Your task to perform on an android device: Open display settings Image 0: 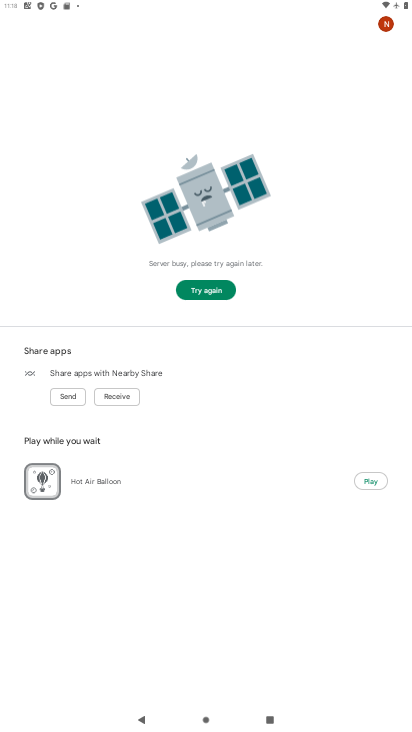
Step 0: press home button
Your task to perform on an android device: Open display settings Image 1: 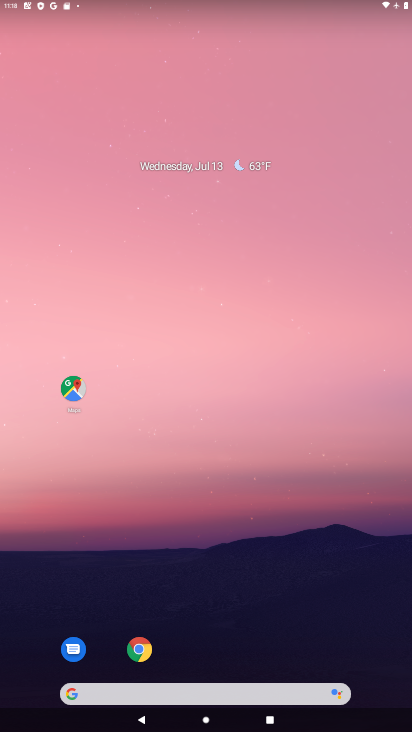
Step 1: drag from (199, 620) to (214, 239)
Your task to perform on an android device: Open display settings Image 2: 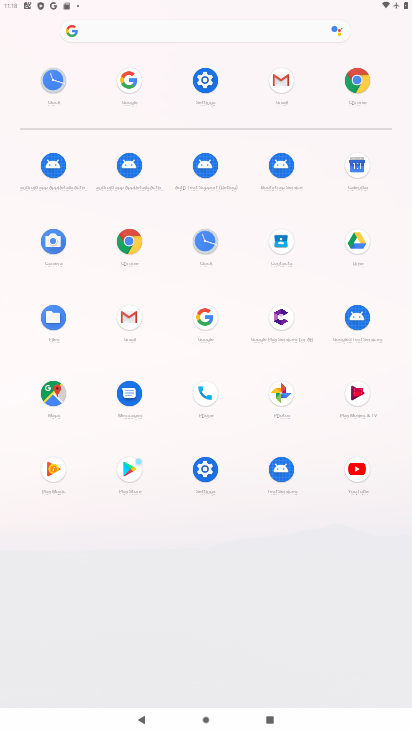
Step 2: click (194, 78)
Your task to perform on an android device: Open display settings Image 3: 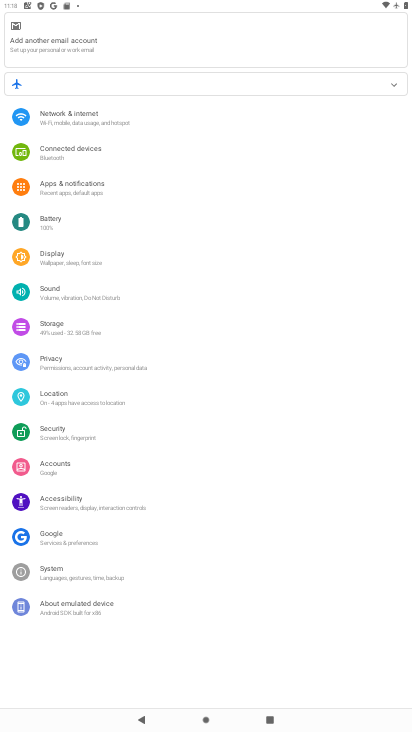
Step 3: click (42, 253)
Your task to perform on an android device: Open display settings Image 4: 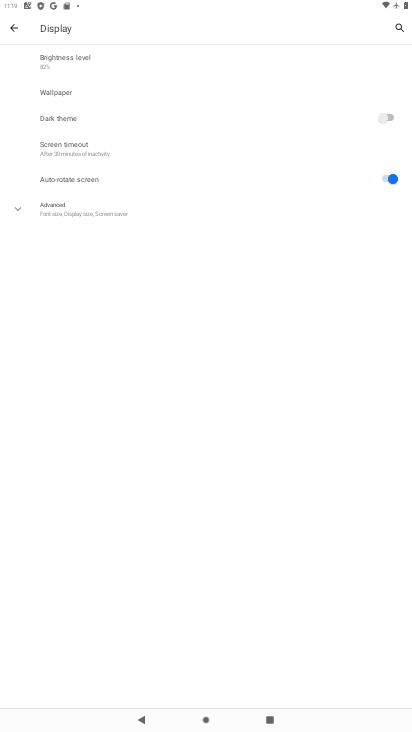
Step 4: task complete